Your task to perform on an android device: delete browsing data in the chrome app Image 0: 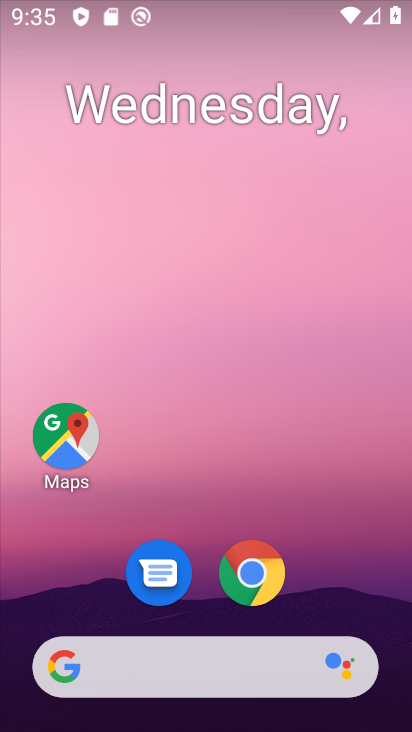
Step 0: drag from (341, 608) to (356, 302)
Your task to perform on an android device: delete browsing data in the chrome app Image 1: 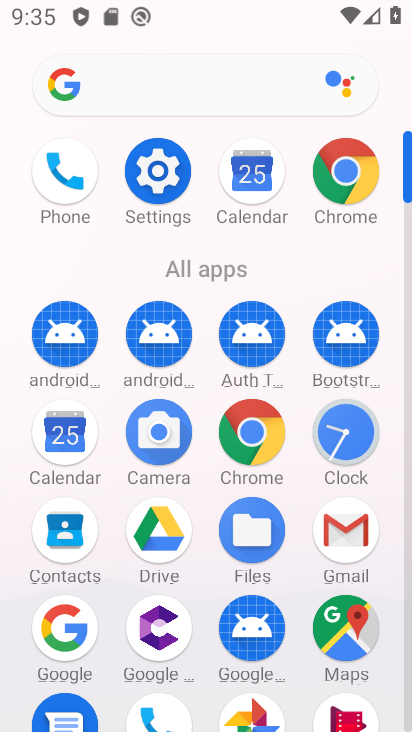
Step 1: click (244, 426)
Your task to perform on an android device: delete browsing data in the chrome app Image 2: 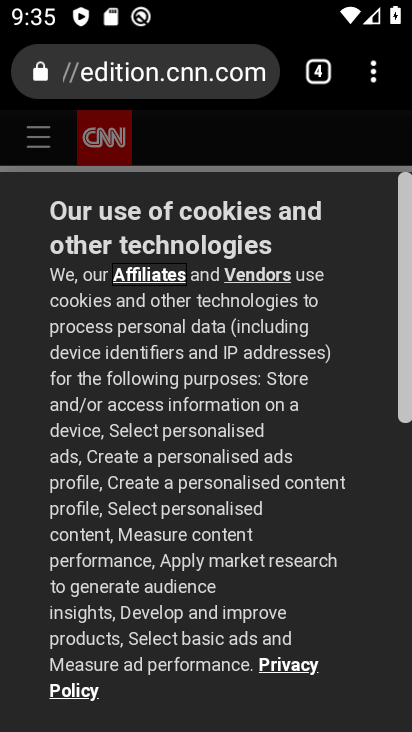
Step 2: click (375, 71)
Your task to perform on an android device: delete browsing data in the chrome app Image 3: 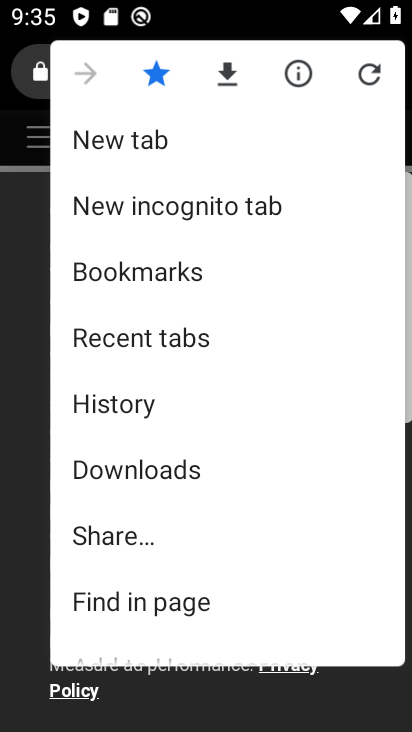
Step 3: click (126, 399)
Your task to perform on an android device: delete browsing data in the chrome app Image 4: 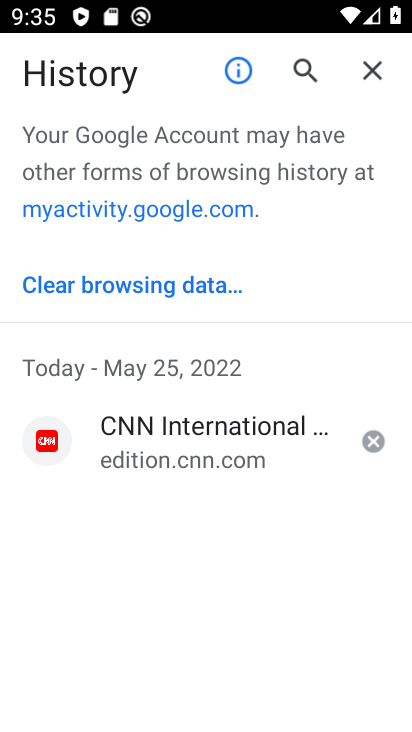
Step 4: click (135, 282)
Your task to perform on an android device: delete browsing data in the chrome app Image 5: 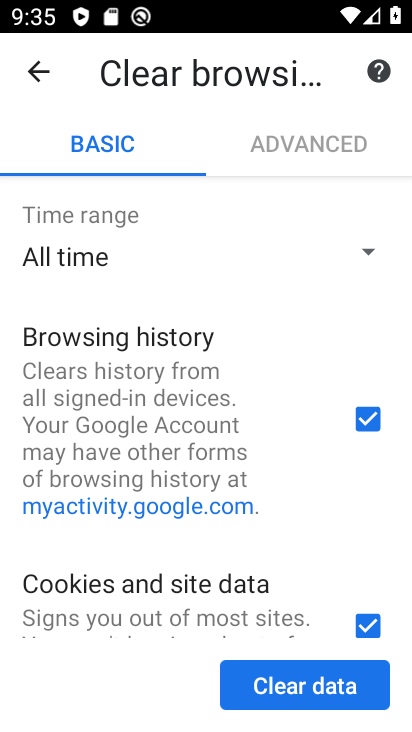
Step 5: click (282, 671)
Your task to perform on an android device: delete browsing data in the chrome app Image 6: 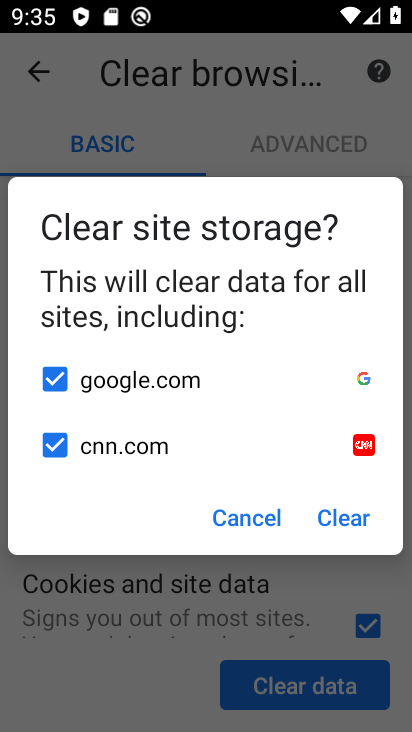
Step 6: click (333, 506)
Your task to perform on an android device: delete browsing data in the chrome app Image 7: 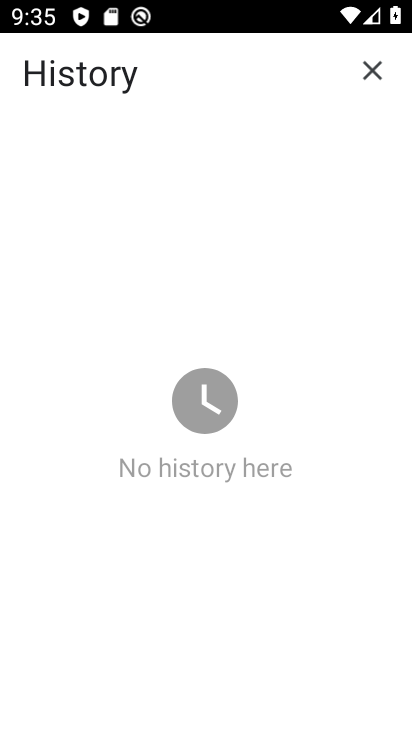
Step 7: task complete